Your task to perform on an android device: Open calendar and show me the third week of next month Image 0: 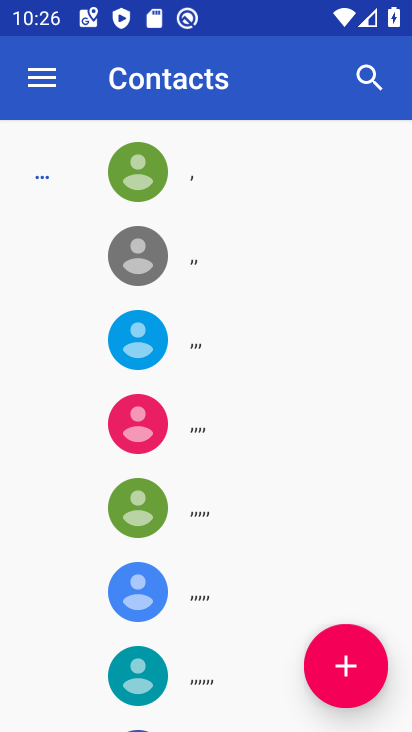
Step 0: press home button
Your task to perform on an android device: Open calendar and show me the third week of next month Image 1: 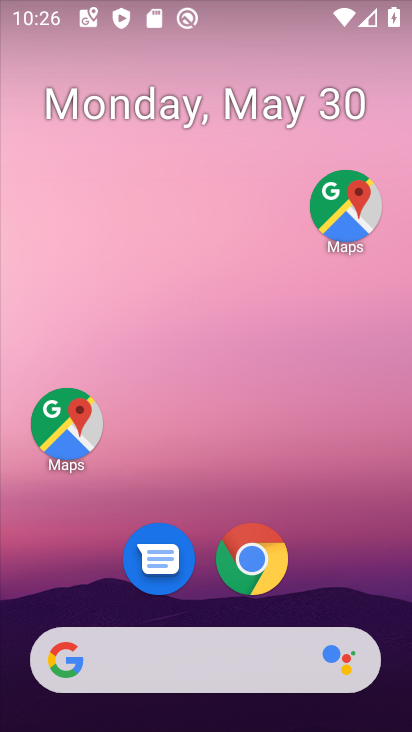
Step 1: drag from (360, 576) to (336, 149)
Your task to perform on an android device: Open calendar and show me the third week of next month Image 2: 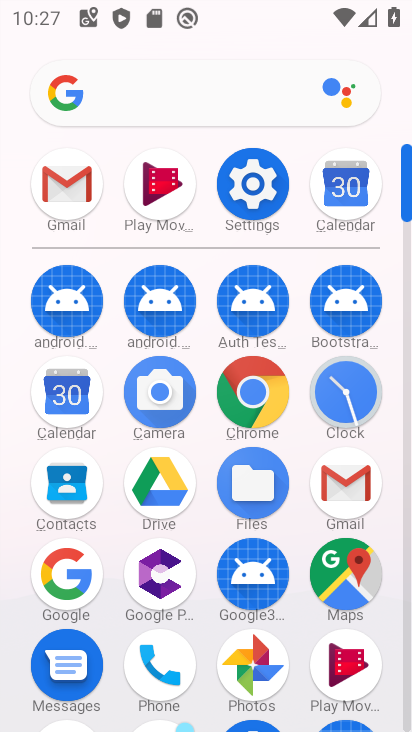
Step 2: click (68, 402)
Your task to perform on an android device: Open calendar and show me the third week of next month Image 3: 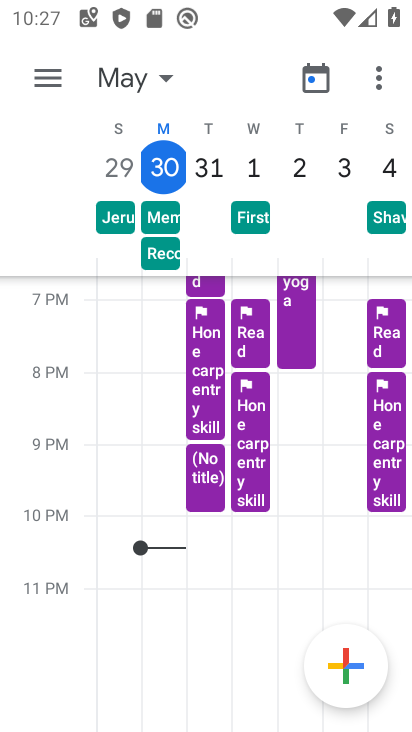
Step 3: click (121, 80)
Your task to perform on an android device: Open calendar and show me the third week of next month Image 4: 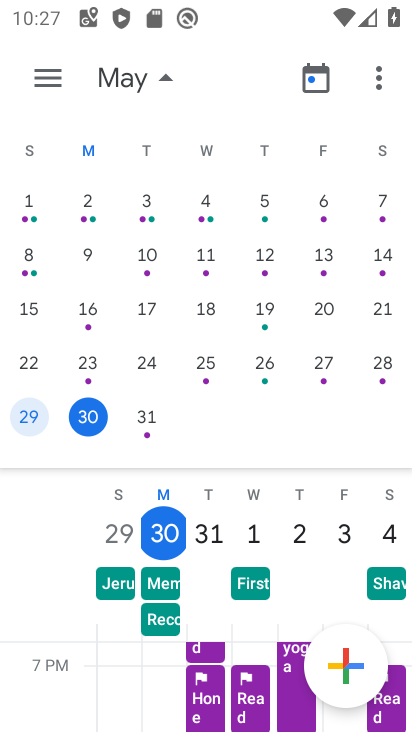
Step 4: drag from (368, 315) to (5, 319)
Your task to perform on an android device: Open calendar and show me the third week of next month Image 5: 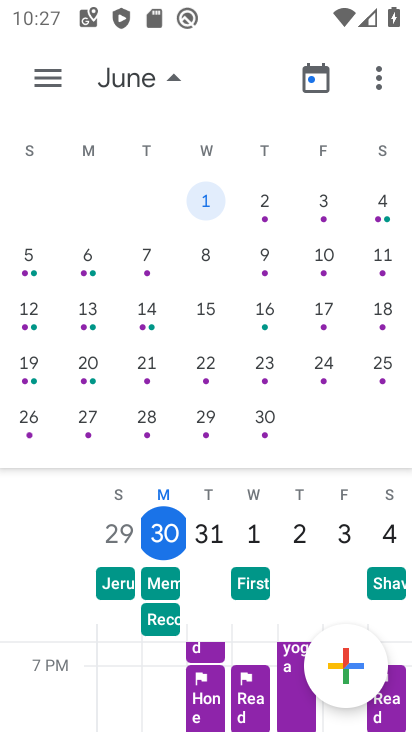
Step 5: click (32, 370)
Your task to perform on an android device: Open calendar and show me the third week of next month Image 6: 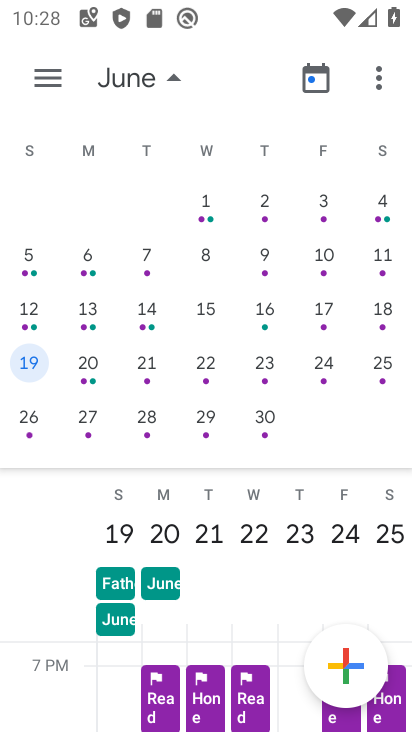
Step 6: task complete